Your task to perform on an android device: Go to notification settings Image 0: 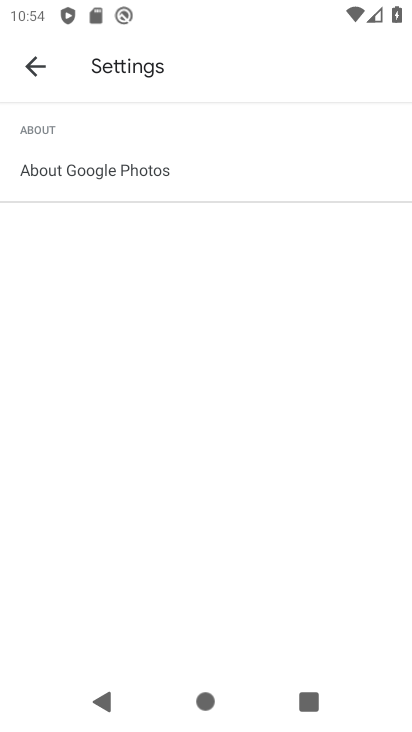
Step 0: press home button
Your task to perform on an android device: Go to notification settings Image 1: 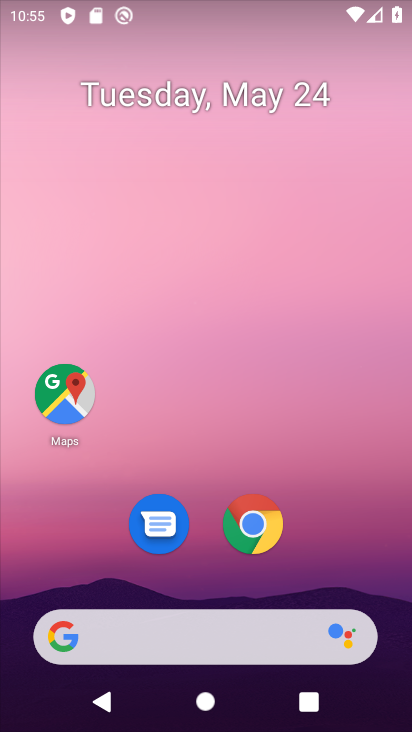
Step 1: drag from (243, 426) to (258, 10)
Your task to perform on an android device: Go to notification settings Image 2: 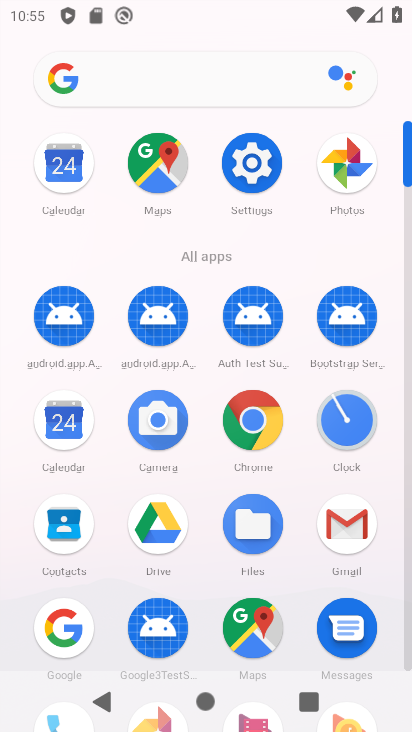
Step 2: click (260, 174)
Your task to perform on an android device: Go to notification settings Image 3: 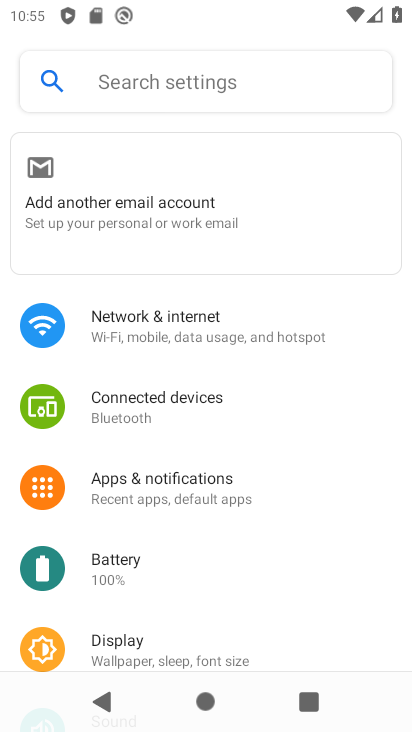
Step 3: click (204, 491)
Your task to perform on an android device: Go to notification settings Image 4: 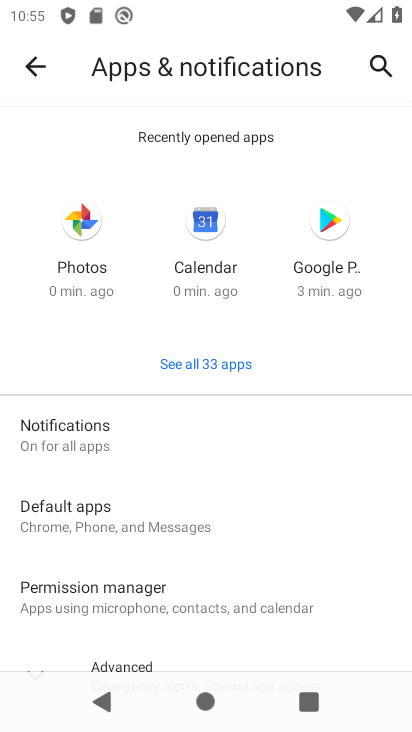
Step 4: click (206, 433)
Your task to perform on an android device: Go to notification settings Image 5: 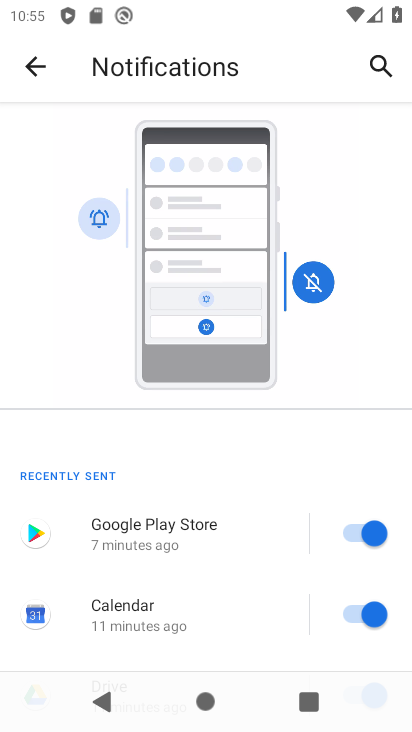
Step 5: task complete